Your task to perform on an android device: Check the weather Image 0: 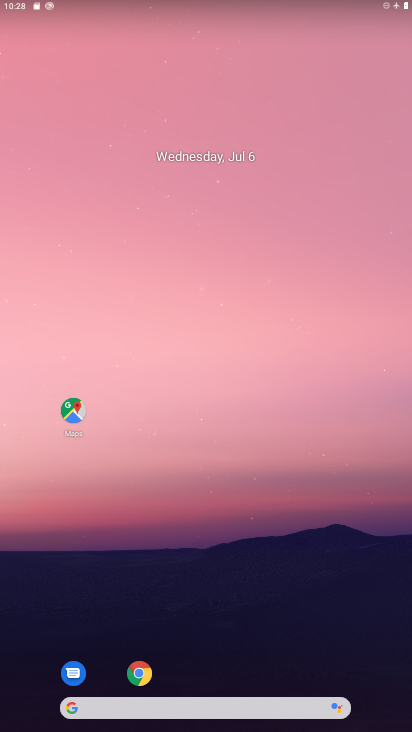
Step 0: click (198, 705)
Your task to perform on an android device: Check the weather Image 1: 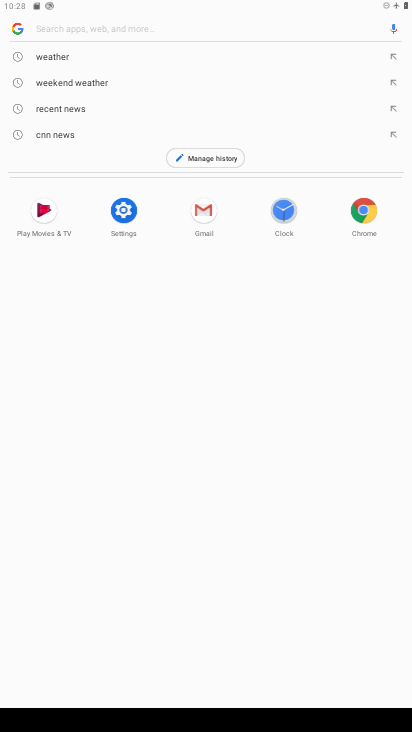
Step 1: click (64, 52)
Your task to perform on an android device: Check the weather Image 2: 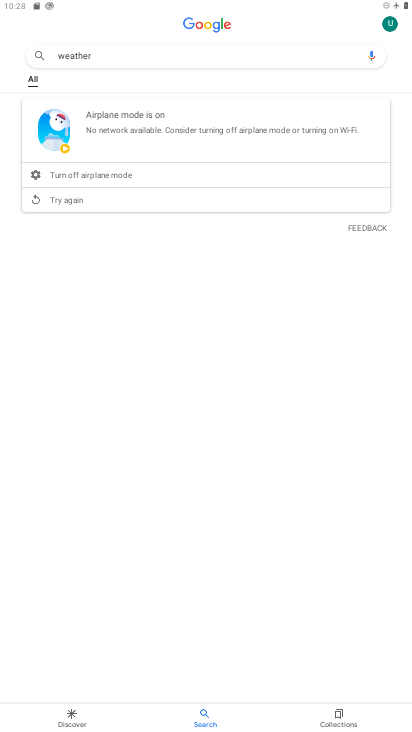
Step 2: drag from (173, 68) to (205, 401)
Your task to perform on an android device: Check the weather Image 3: 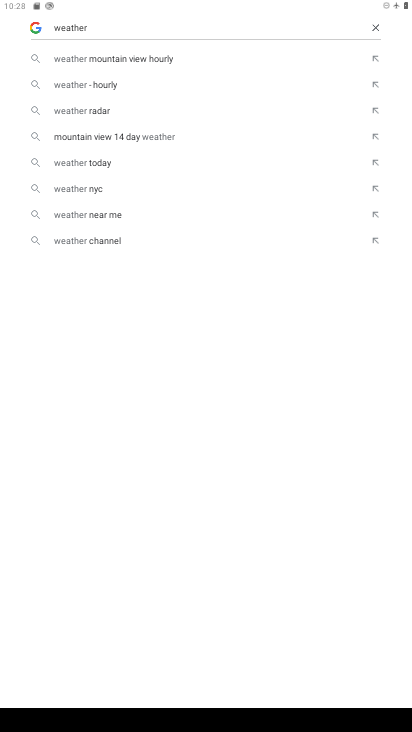
Step 3: drag from (281, 7) to (245, 484)
Your task to perform on an android device: Check the weather Image 4: 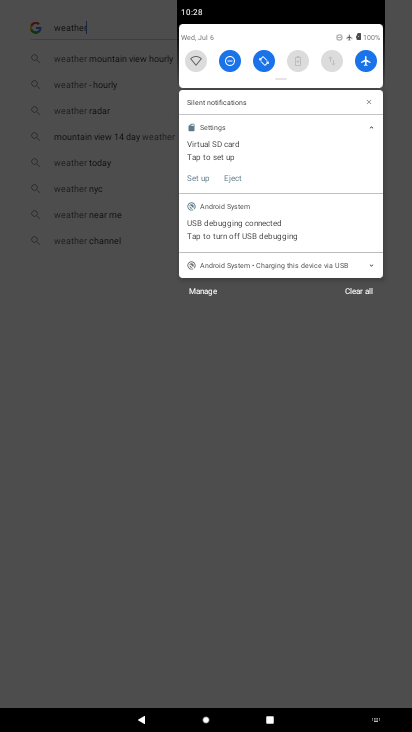
Step 4: click (365, 66)
Your task to perform on an android device: Check the weather Image 5: 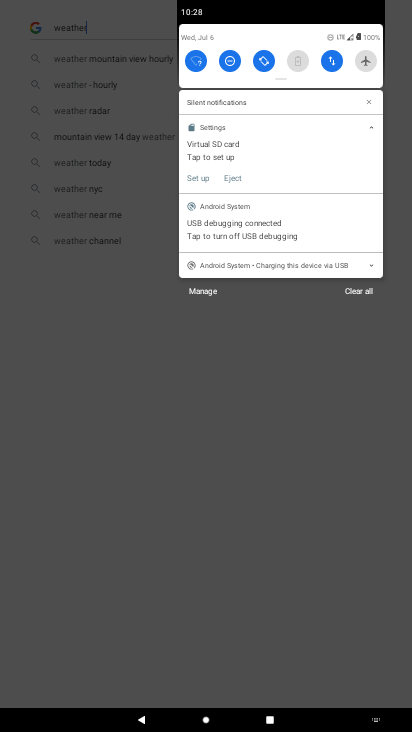
Step 5: task complete